Your task to perform on an android device: Clear the cart on costco. Search for "razer naga" on costco, select the first entry, add it to the cart, then select checkout. Image 0: 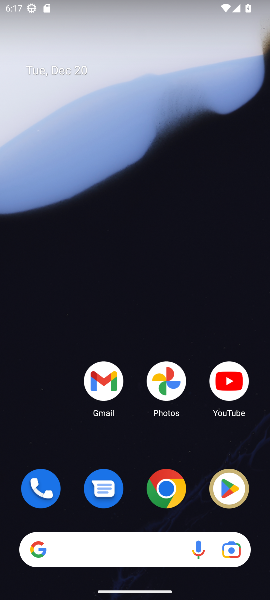
Step 0: drag from (44, 403) to (35, 40)
Your task to perform on an android device: Clear the cart on costco. Search for "razer naga" on costco, select the first entry, add it to the cart, then select checkout. Image 1: 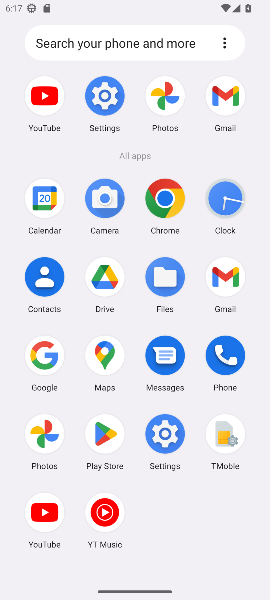
Step 1: click (37, 356)
Your task to perform on an android device: Clear the cart on costco. Search for "razer naga" on costco, select the first entry, add it to the cart, then select checkout. Image 2: 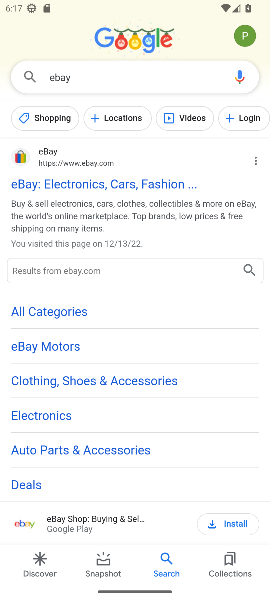
Step 2: click (130, 77)
Your task to perform on an android device: Clear the cart on costco. Search for "razer naga" on costco, select the first entry, add it to the cart, then select checkout. Image 3: 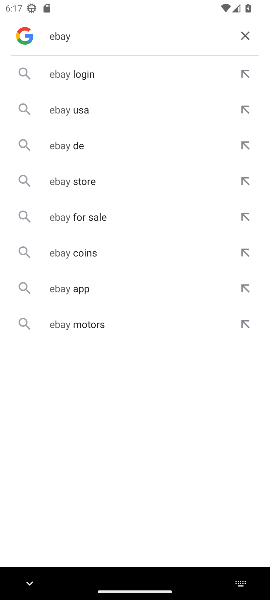
Step 3: click (247, 32)
Your task to perform on an android device: Clear the cart on costco. Search for "razer naga" on costco, select the first entry, add it to the cart, then select checkout. Image 4: 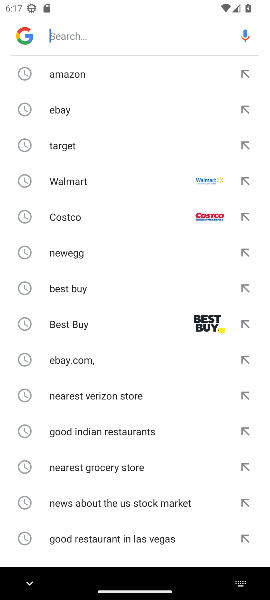
Step 4: type "costco"
Your task to perform on an android device: Clear the cart on costco. Search for "razer naga" on costco, select the first entry, add it to the cart, then select checkout. Image 5: 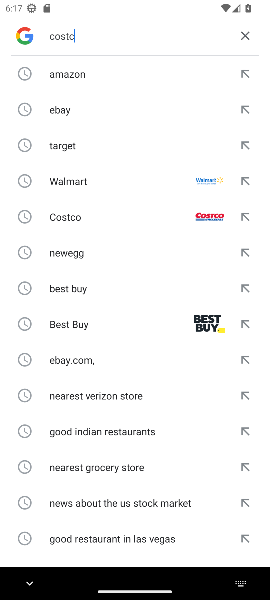
Step 5: press enter
Your task to perform on an android device: Clear the cart on costco. Search for "razer naga" on costco, select the first entry, add it to the cart, then select checkout. Image 6: 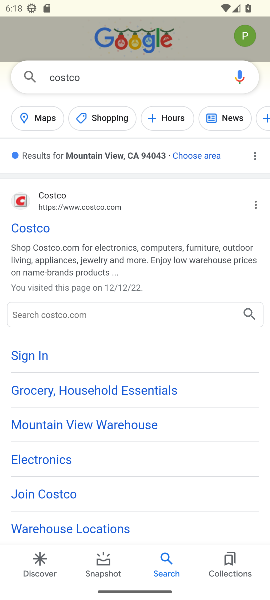
Step 6: click (24, 226)
Your task to perform on an android device: Clear the cart on costco. Search for "razer naga" on costco, select the first entry, add it to the cart, then select checkout. Image 7: 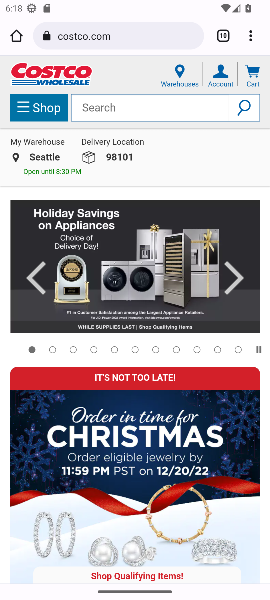
Step 7: click (247, 69)
Your task to perform on an android device: Clear the cart on costco. Search for "razer naga" on costco, select the first entry, add it to the cart, then select checkout. Image 8: 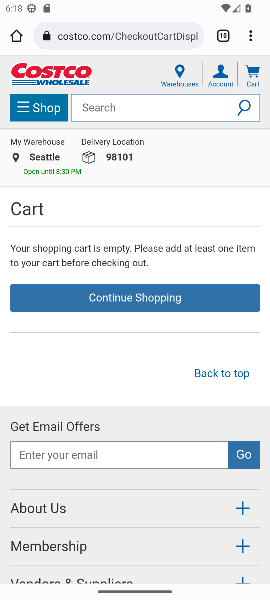
Step 8: click (93, 105)
Your task to perform on an android device: Clear the cart on costco. Search for "razer naga" on costco, select the first entry, add it to the cart, then select checkout. Image 9: 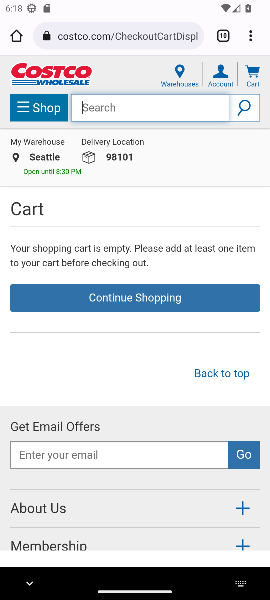
Step 9: type "razer naga"
Your task to perform on an android device: Clear the cart on costco. Search for "razer naga" on costco, select the first entry, add it to the cart, then select checkout. Image 10: 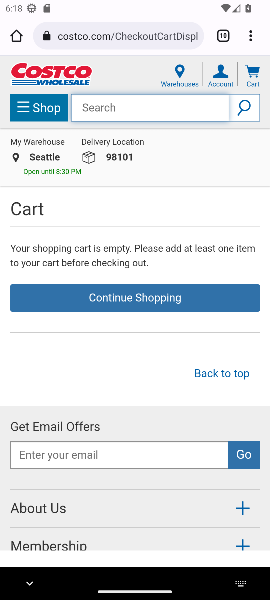
Step 10: press enter
Your task to perform on an android device: Clear the cart on costco. Search for "razer naga" on costco, select the first entry, add it to the cart, then select checkout. Image 11: 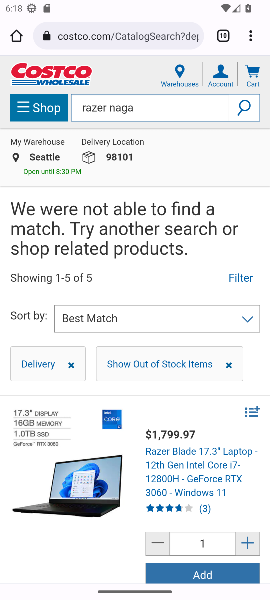
Step 11: task complete